Your task to perform on an android device: Turn off the flashlight Image 0: 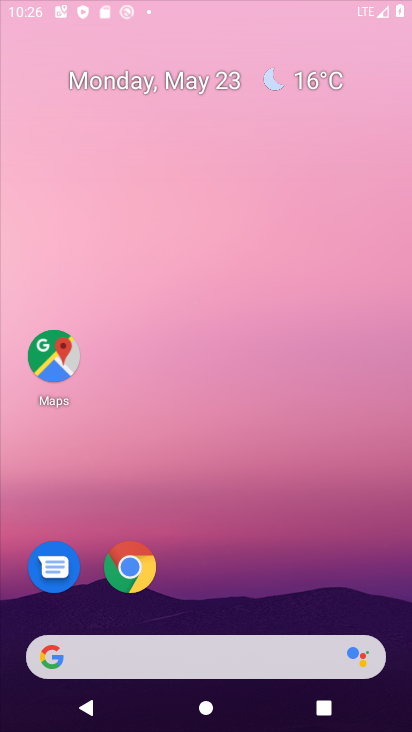
Step 0: drag from (202, 562) to (250, 55)
Your task to perform on an android device: Turn off the flashlight Image 1: 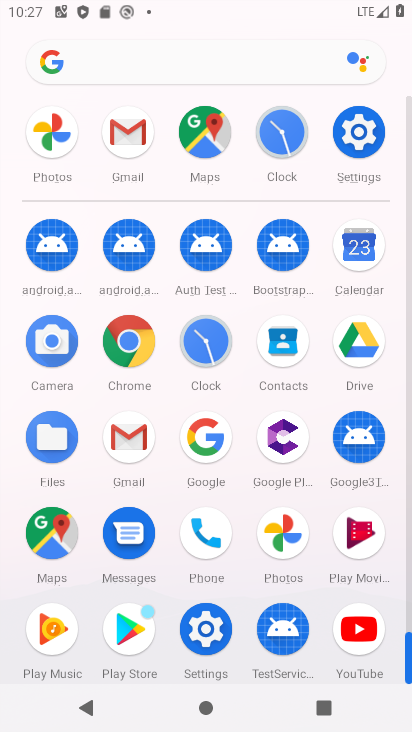
Step 1: click (350, 127)
Your task to perform on an android device: Turn off the flashlight Image 2: 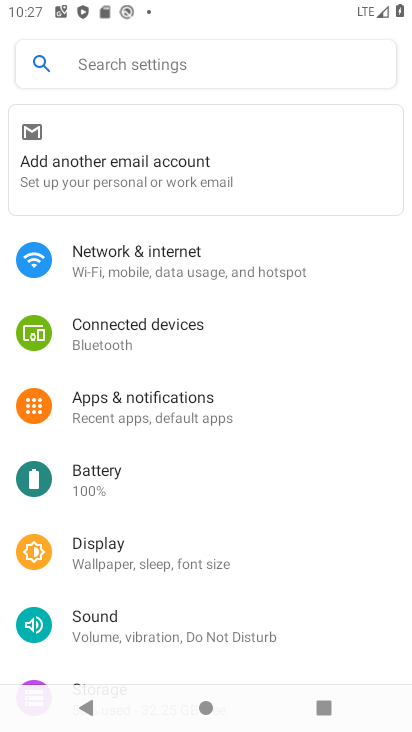
Step 2: click (188, 68)
Your task to perform on an android device: Turn off the flashlight Image 3: 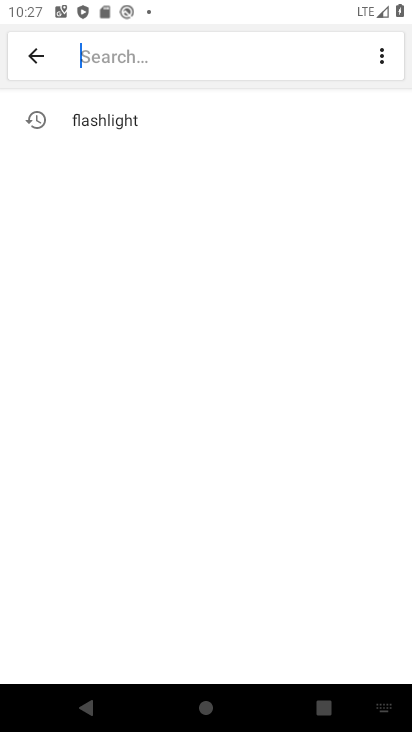
Step 3: type "flashlight"
Your task to perform on an android device: Turn off the flashlight Image 4: 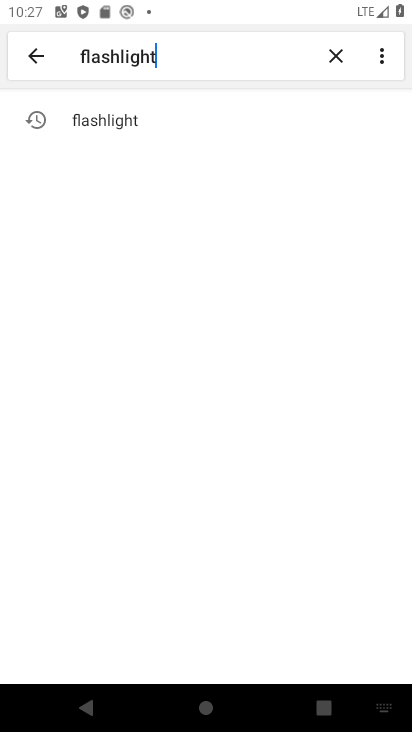
Step 4: click (164, 126)
Your task to perform on an android device: Turn off the flashlight Image 5: 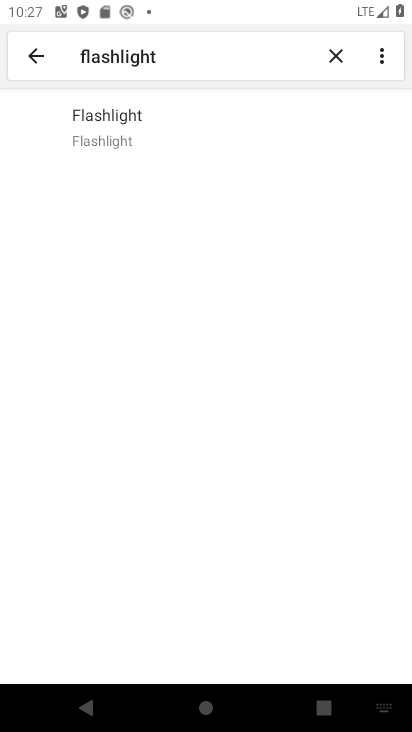
Step 5: task complete